Your task to perform on an android device: find snoozed emails in the gmail app Image 0: 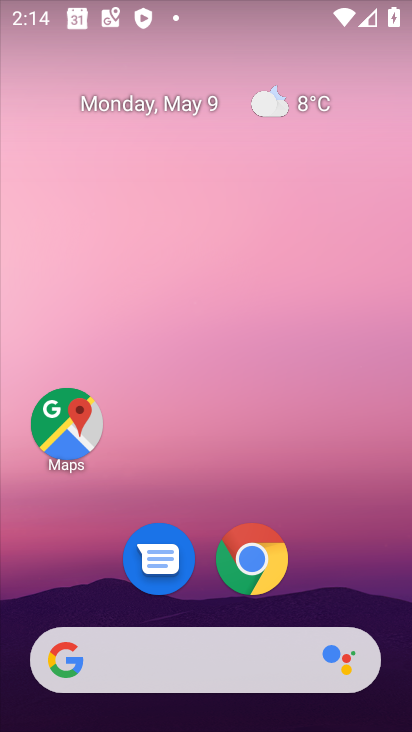
Step 0: drag from (329, 522) to (229, 132)
Your task to perform on an android device: find snoozed emails in the gmail app Image 1: 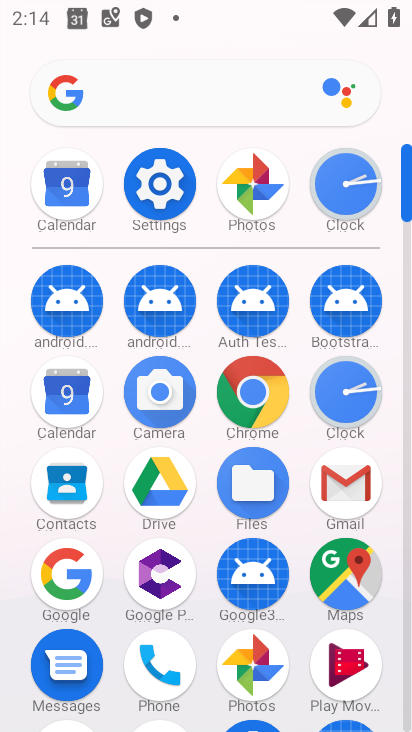
Step 1: click (327, 467)
Your task to perform on an android device: find snoozed emails in the gmail app Image 2: 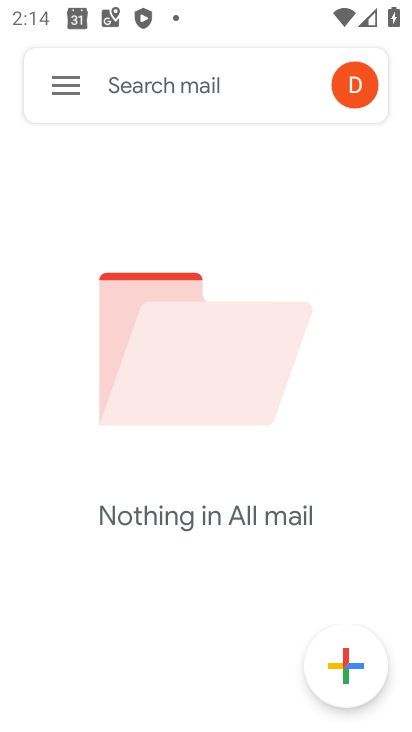
Step 2: click (60, 90)
Your task to perform on an android device: find snoozed emails in the gmail app Image 3: 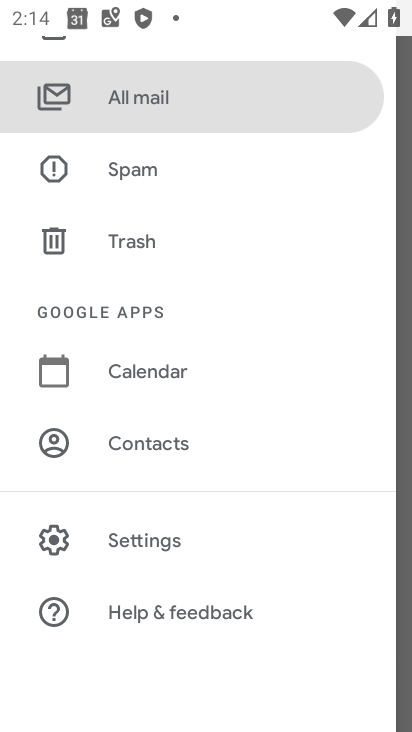
Step 3: drag from (167, 235) to (216, 726)
Your task to perform on an android device: find snoozed emails in the gmail app Image 4: 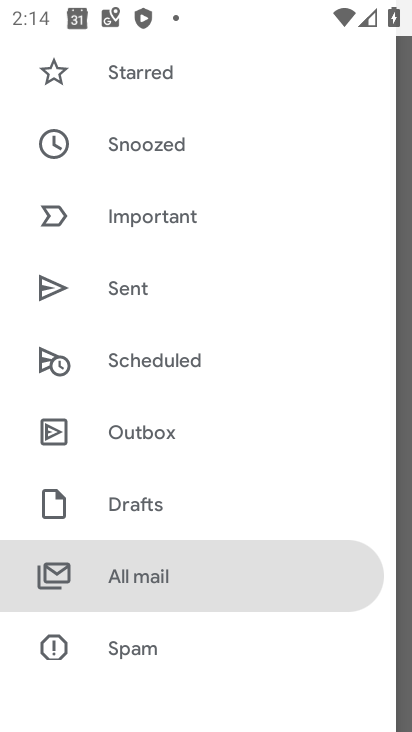
Step 4: click (124, 155)
Your task to perform on an android device: find snoozed emails in the gmail app Image 5: 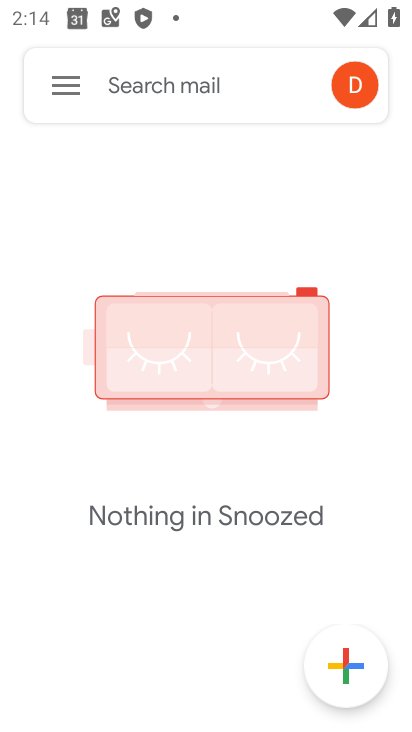
Step 5: task complete